Your task to perform on an android device: turn smart compose on in the gmail app Image 0: 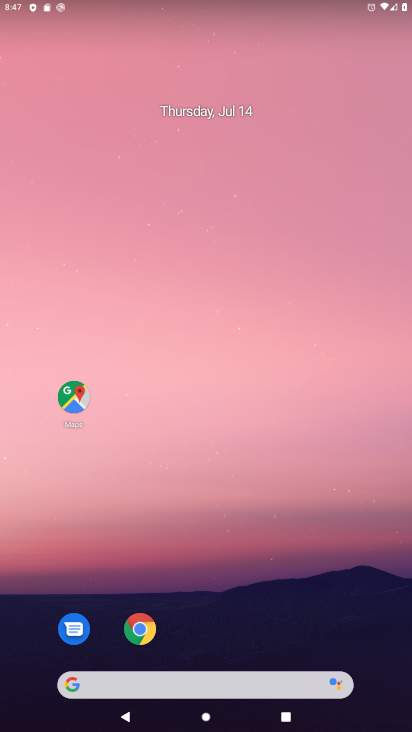
Step 0: drag from (271, 617) to (279, 45)
Your task to perform on an android device: turn smart compose on in the gmail app Image 1: 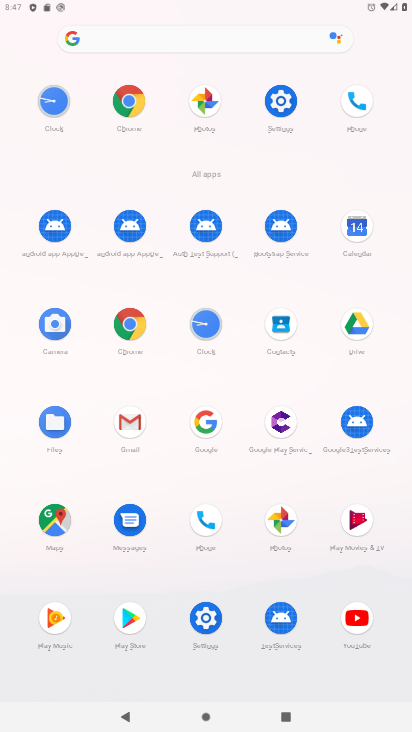
Step 1: click (123, 421)
Your task to perform on an android device: turn smart compose on in the gmail app Image 2: 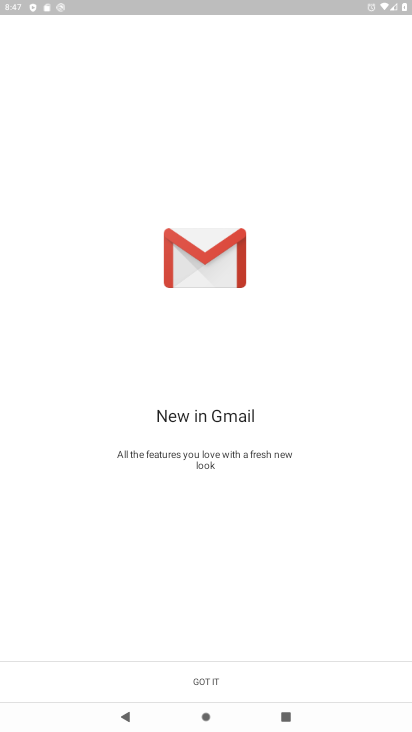
Step 2: click (226, 670)
Your task to perform on an android device: turn smart compose on in the gmail app Image 3: 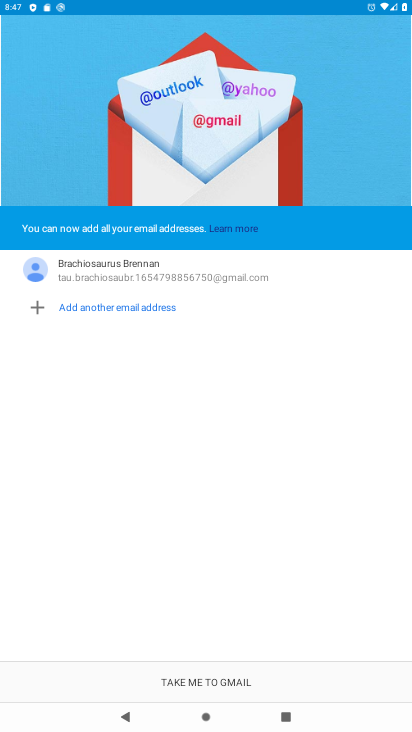
Step 3: click (226, 670)
Your task to perform on an android device: turn smart compose on in the gmail app Image 4: 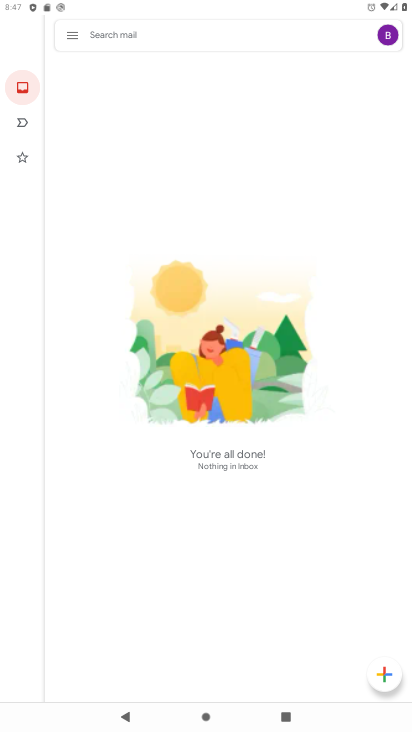
Step 4: click (73, 34)
Your task to perform on an android device: turn smart compose on in the gmail app Image 5: 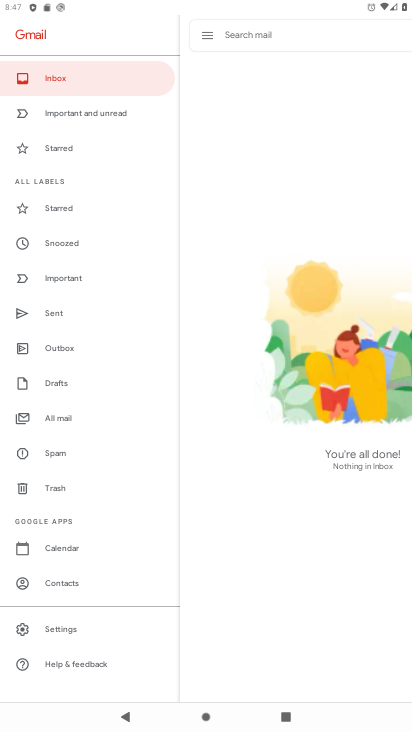
Step 5: click (66, 633)
Your task to perform on an android device: turn smart compose on in the gmail app Image 6: 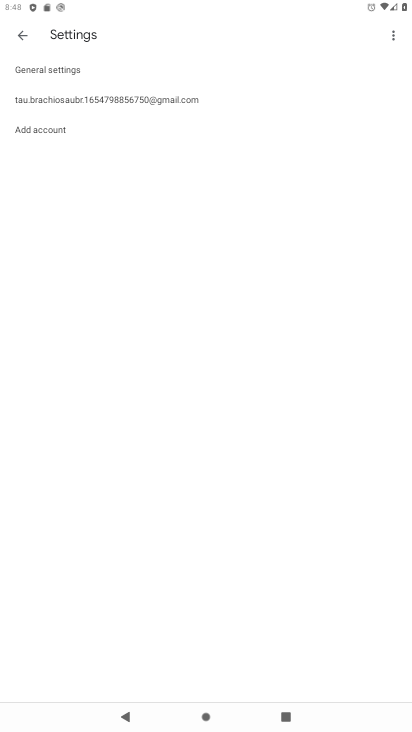
Step 6: click (213, 106)
Your task to perform on an android device: turn smart compose on in the gmail app Image 7: 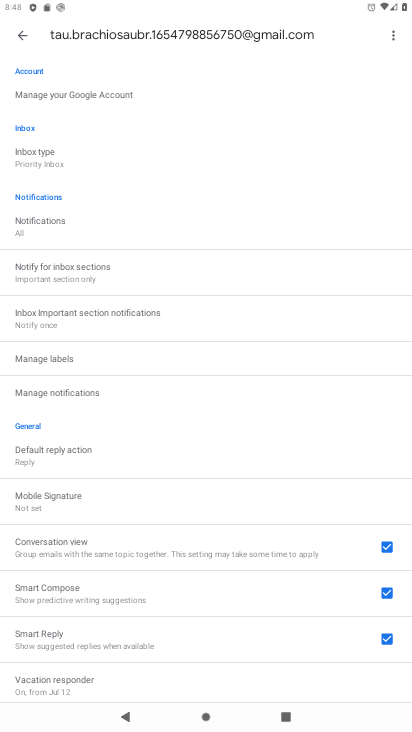
Step 7: task complete